Your task to perform on an android device: find photos in the google photos app Image 0: 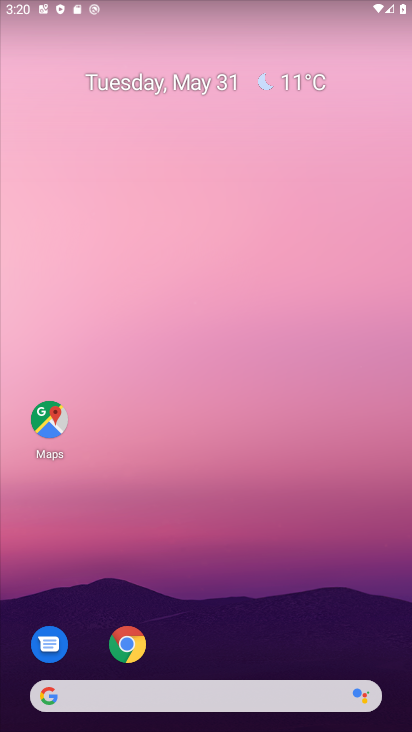
Step 0: drag from (220, 592) to (290, 144)
Your task to perform on an android device: find photos in the google photos app Image 1: 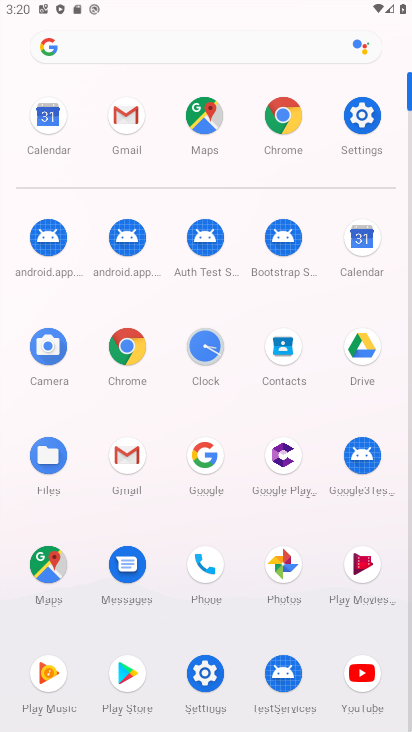
Step 1: click (303, 555)
Your task to perform on an android device: find photos in the google photos app Image 2: 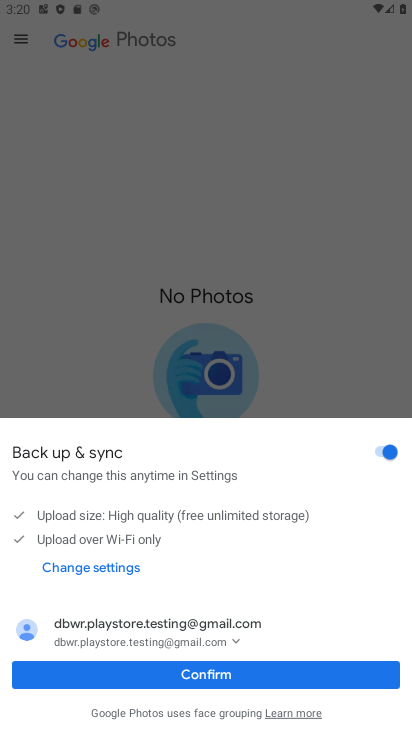
Step 2: click (310, 669)
Your task to perform on an android device: find photos in the google photos app Image 3: 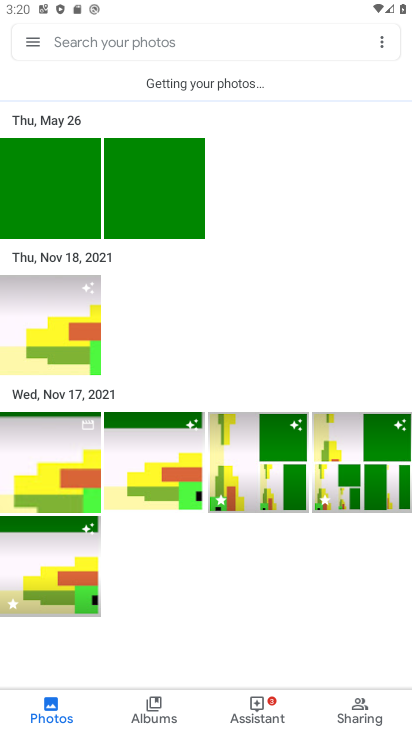
Step 3: task complete